Your task to perform on an android device: stop showing notifications on the lock screen Image 0: 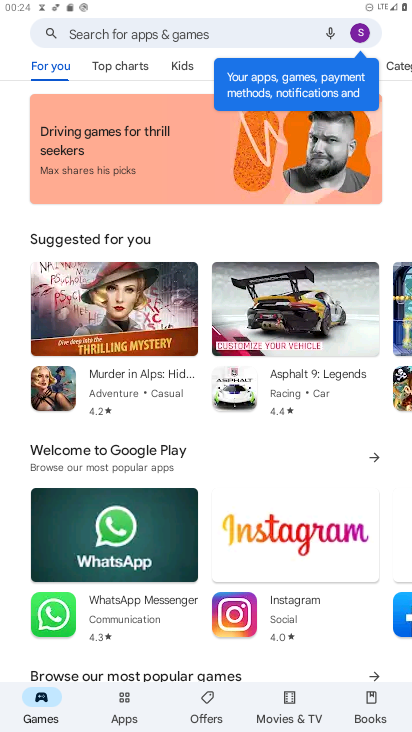
Step 0: press home button
Your task to perform on an android device: stop showing notifications on the lock screen Image 1: 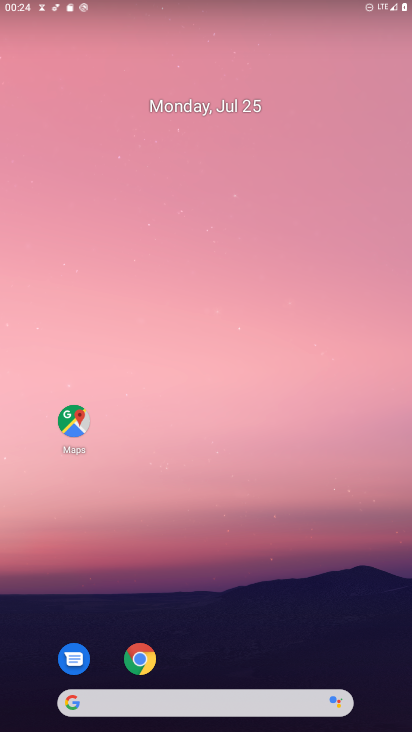
Step 1: drag from (196, 580) to (194, 191)
Your task to perform on an android device: stop showing notifications on the lock screen Image 2: 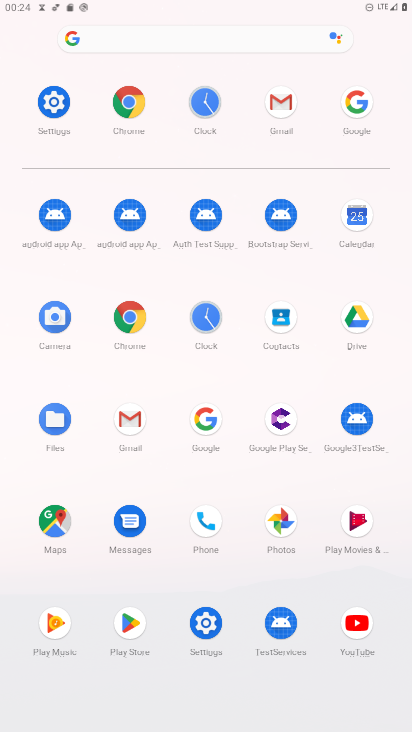
Step 2: click (63, 92)
Your task to perform on an android device: stop showing notifications on the lock screen Image 3: 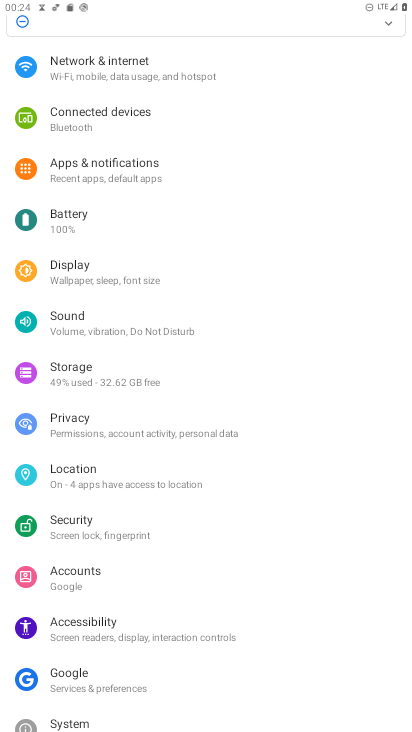
Step 3: click (145, 168)
Your task to perform on an android device: stop showing notifications on the lock screen Image 4: 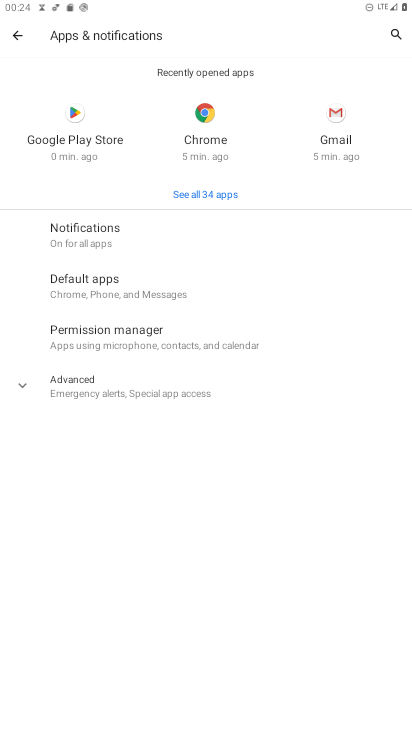
Step 4: click (130, 237)
Your task to perform on an android device: stop showing notifications on the lock screen Image 5: 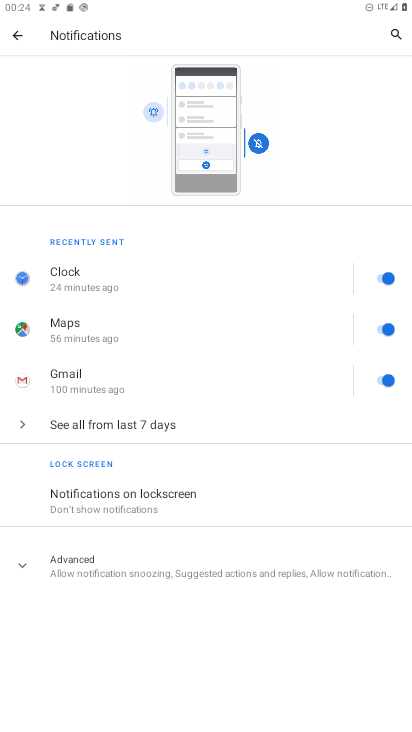
Step 5: click (96, 485)
Your task to perform on an android device: stop showing notifications on the lock screen Image 6: 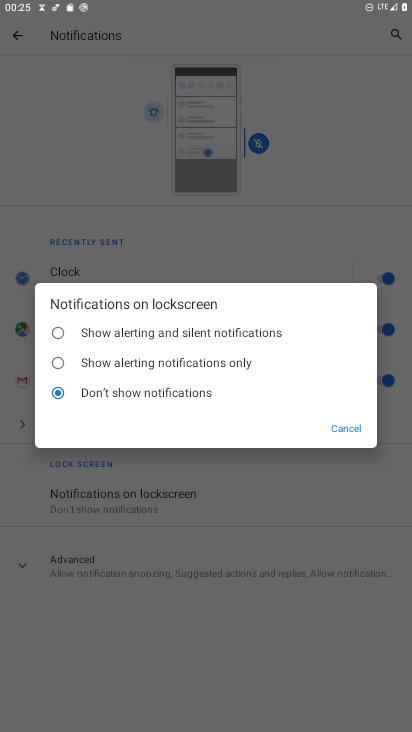
Step 6: task complete